Your task to perform on an android device: turn on the 24-hour format for clock Image 0: 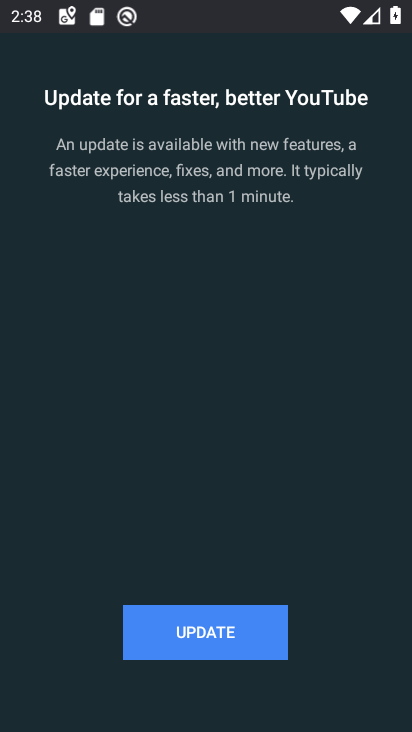
Step 0: press home button
Your task to perform on an android device: turn on the 24-hour format for clock Image 1: 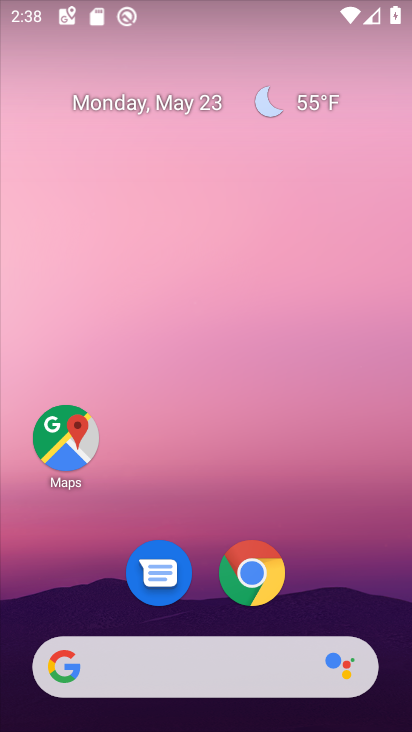
Step 1: drag from (330, 571) to (283, 7)
Your task to perform on an android device: turn on the 24-hour format for clock Image 2: 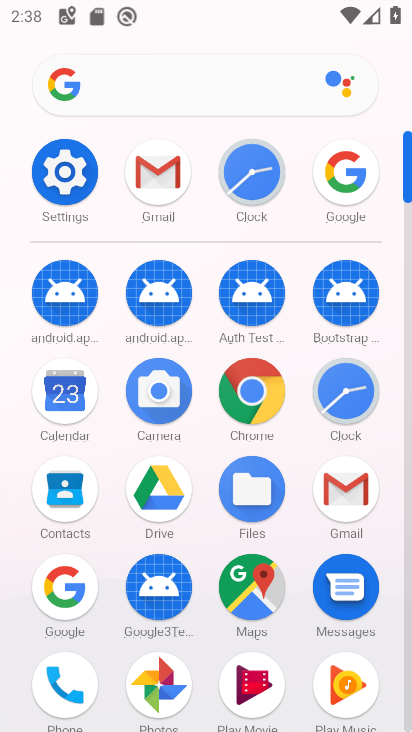
Step 2: click (345, 397)
Your task to perform on an android device: turn on the 24-hour format for clock Image 3: 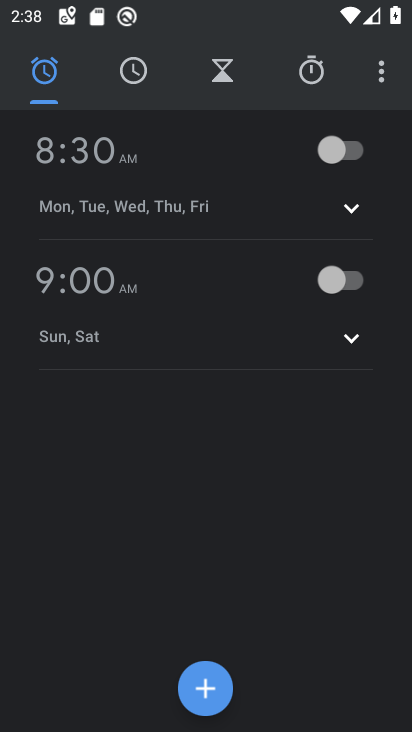
Step 3: click (384, 72)
Your task to perform on an android device: turn on the 24-hour format for clock Image 4: 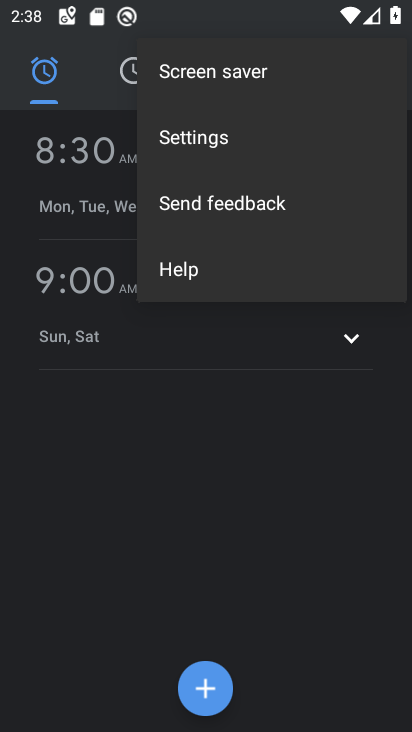
Step 4: click (220, 134)
Your task to perform on an android device: turn on the 24-hour format for clock Image 5: 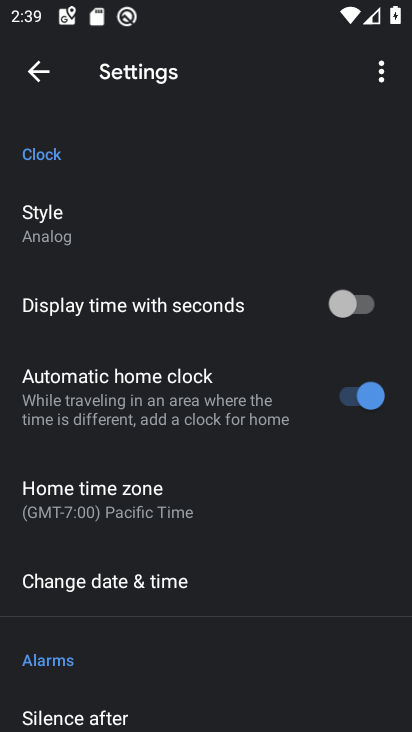
Step 5: click (105, 578)
Your task to perform on an android device: turn on the 24-hour format for clock Image 6: 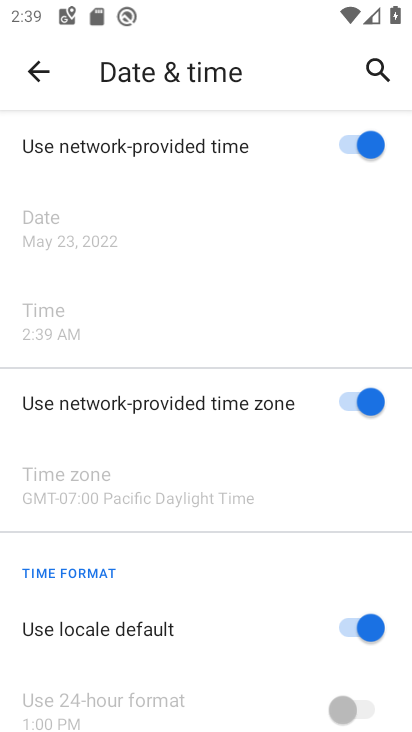
Step 6: click (345, 625)
Your task to perform on an android device: turn on the 24-hour format for clock Image 7: 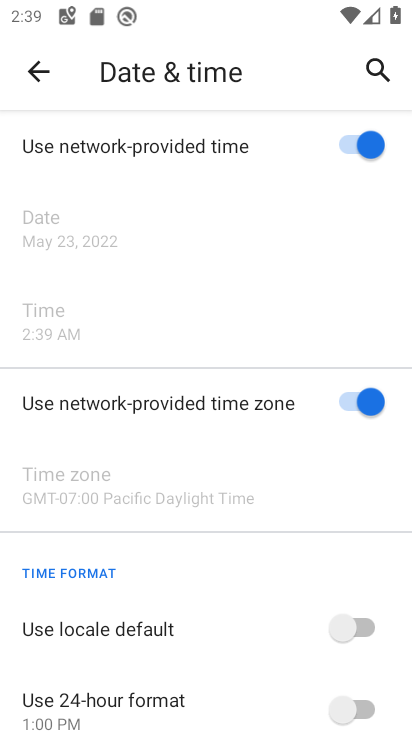
Step 7: click (369, 708)
Your task to perform on an android device: turn on the 24-hour format for clock Image 8: 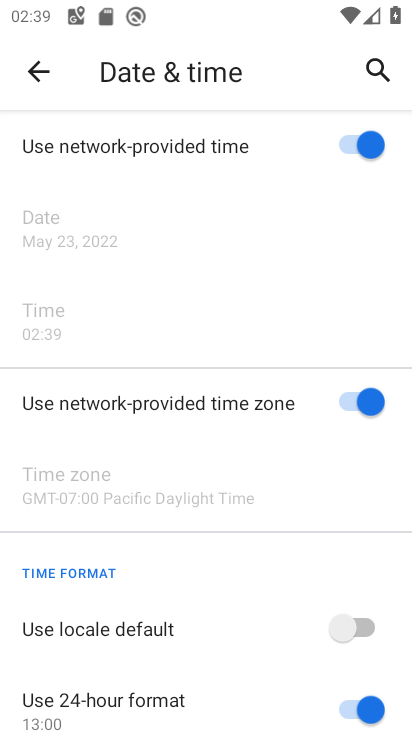
Step 8: task complete